Your task to perform on an android device: change the clock style Image 0: 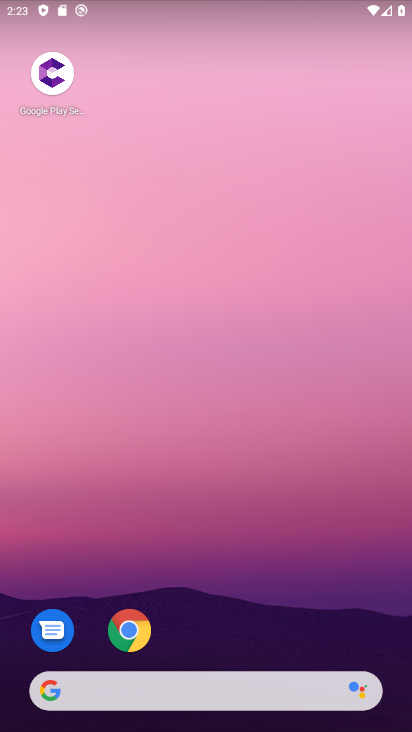
Step 0: drag from (220, 576) to (230, 111)
Your task to perform on an android device: change the clock style Image 1: 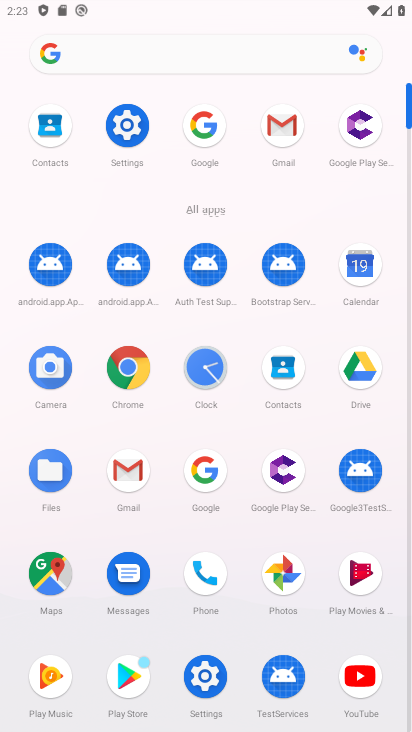
Step 1: click (194, 364)
Your task to perform on an android device: change the clock style Image 2: 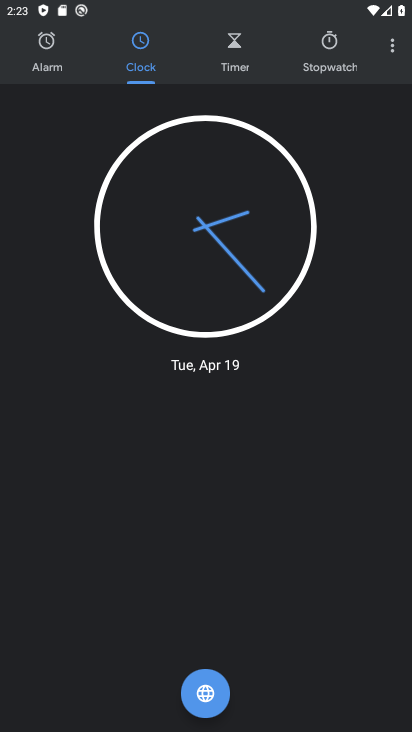
Step 2: click (385, 45)
Your task to perform on an android device: change the clock style Image 3: 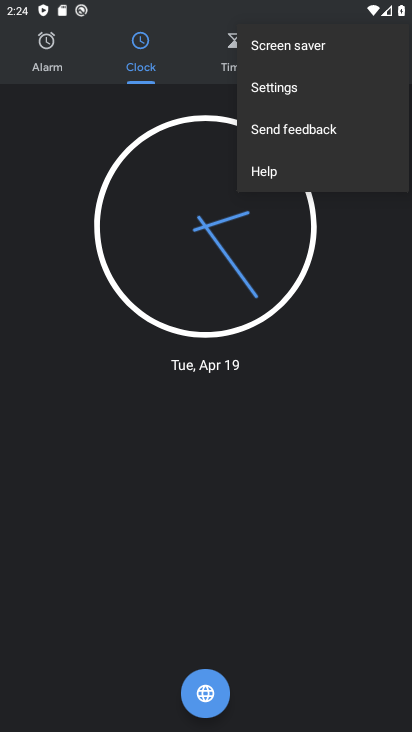
Step 3: click (319, 95)
Your task to perform on an android device: change the clock style Image 4: 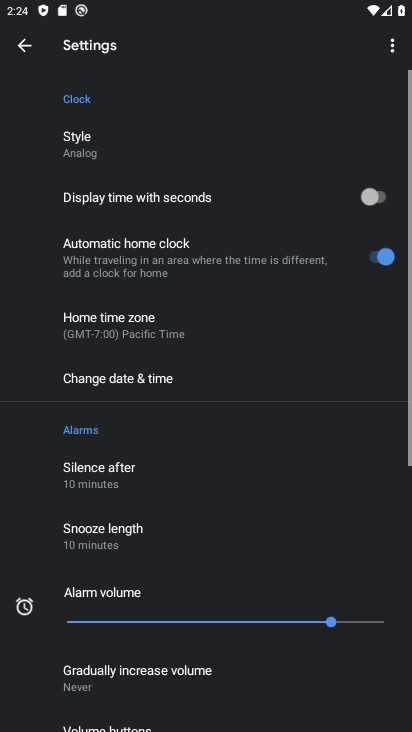
Step 4: click (138, 141)
Your task to perform on an android device: change the clock style Image 5: 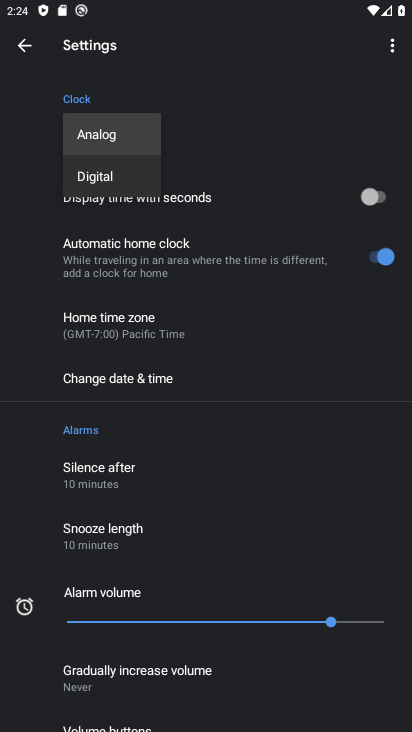
Step 5: click (119, 176)
Your task to perform on an android device: change the clock style Image 6: 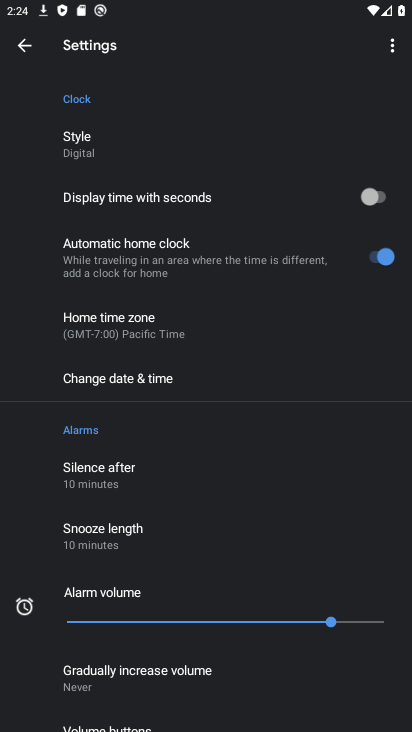
Step 6: task complete